Your task to perform on an android device: open chrome and create a bookmark for the current page Image 0: 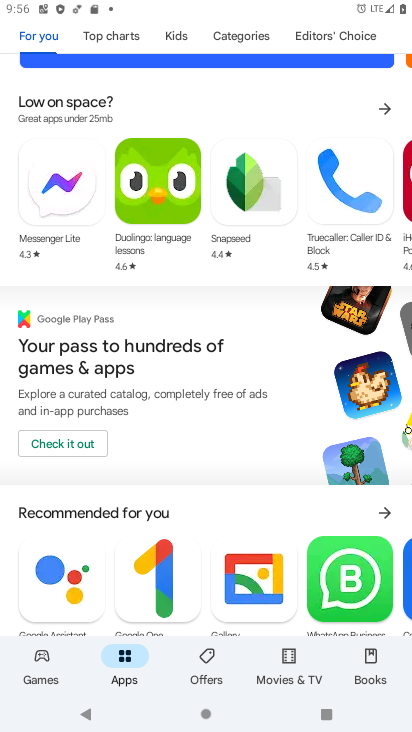
Step 0: press home button
Your task to perform on an android device: open chrome and create a bookmark for the current page Image 1: 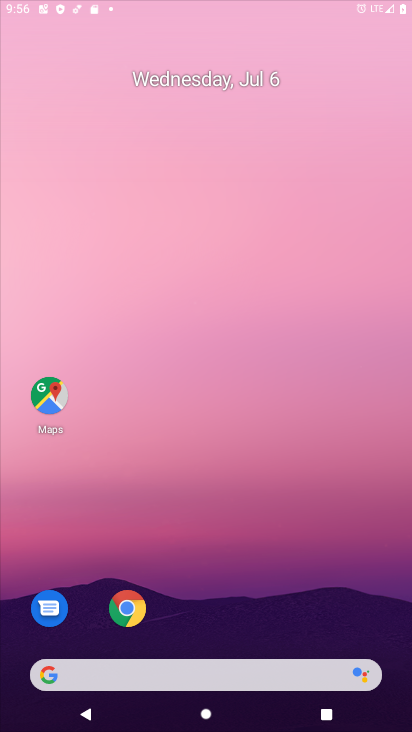
Step 1: drag from (384, 663) to (272, 110)
Your task to perform on an android device: open chrome and create a bookmark for the current page Image 2: 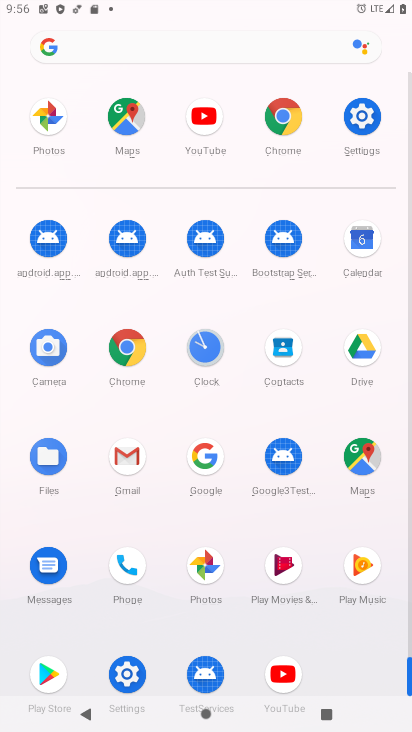
Step 2: click (267, 112)
Your task to perform on an android device: open chrome and create a bookmark for the current page Image 3: 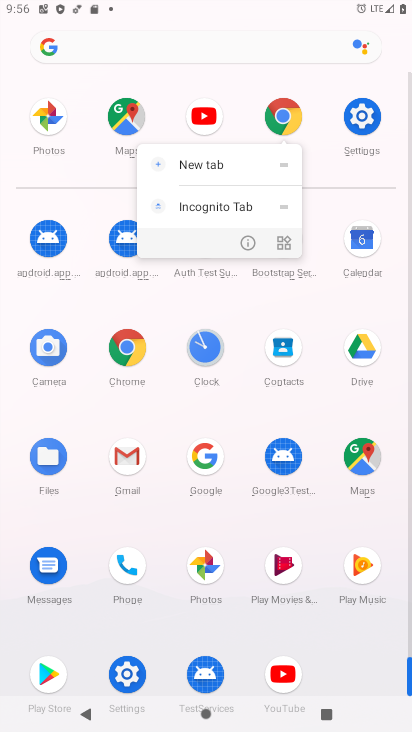
Step 3: click (267, 112)
Your task to perform on an android device: open chrome and create a bookmark for the current page Image 4: 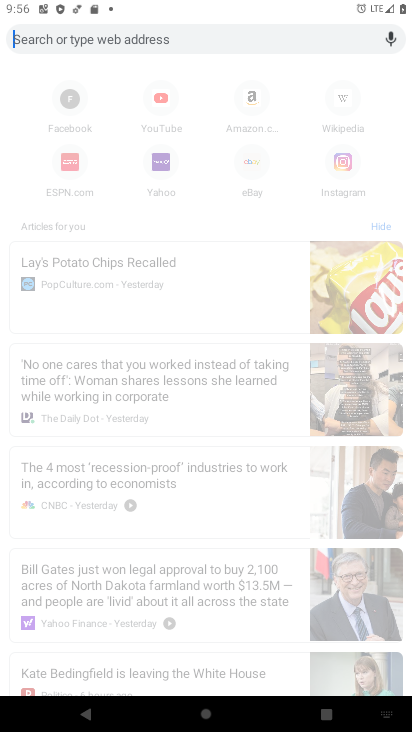
Step 4: press back button
Your task to perform on an android device: open chrome and create a bookmark for the current page Image 5: 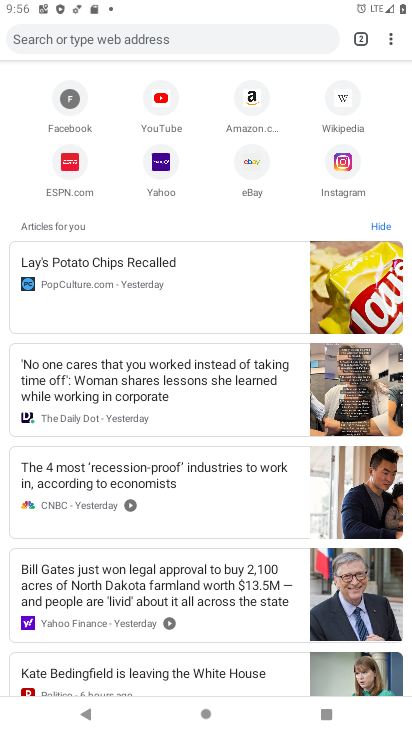
Step 5: click (387, 33)
Your task to perform on an android device: open chrome and create a bookmark for the current page Image 6: 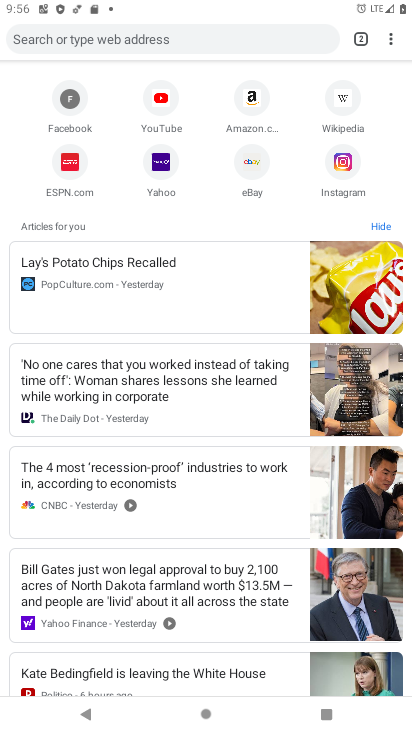
Step 6: click (393, 33)
Your task to perform on an android device: open chrome and create a bookmark for the current page Image 7: 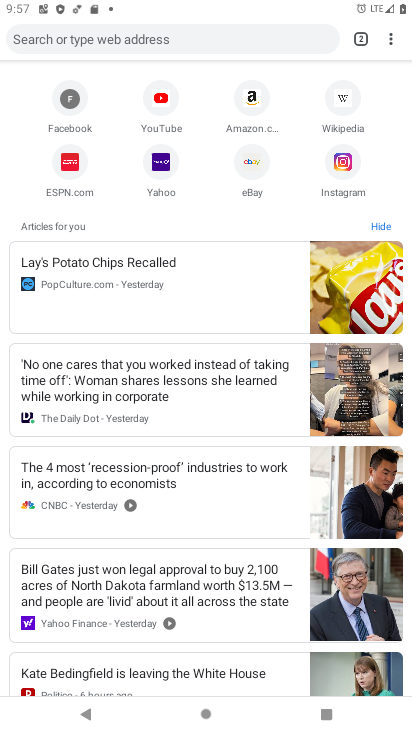
Step 7: click (381, 29)
Your task to perform on an android device: open chrome and create a bookmark for the current page Image 8: 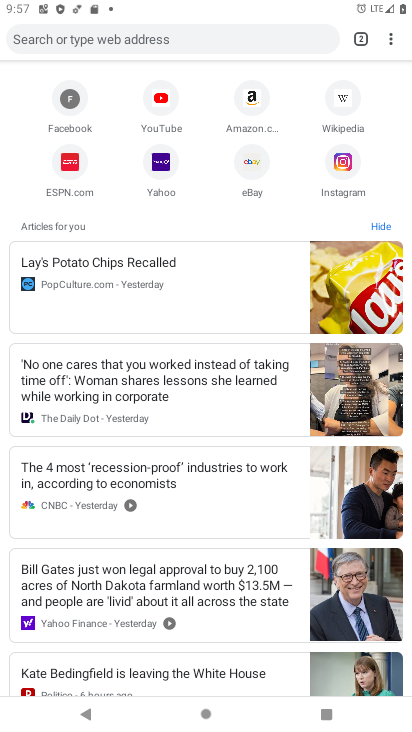
Step 8: click (388, 37)
Your task to perform on an android device: open chrome and create a bookmark for the current page Image 9: 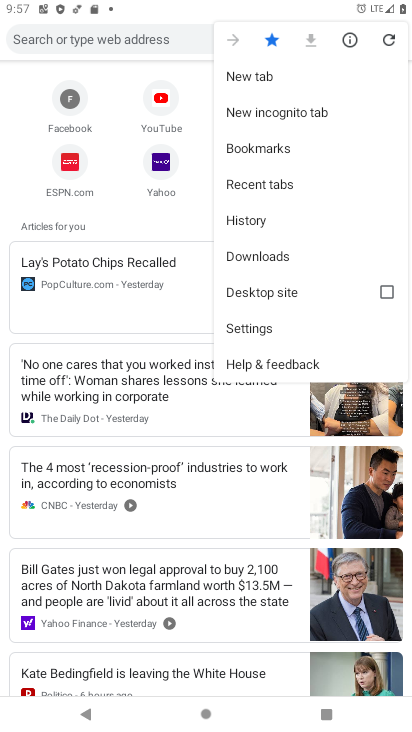
Step 9: task complete